Your task to perform on an android device: turn on javascript in the chrome app Image 0: 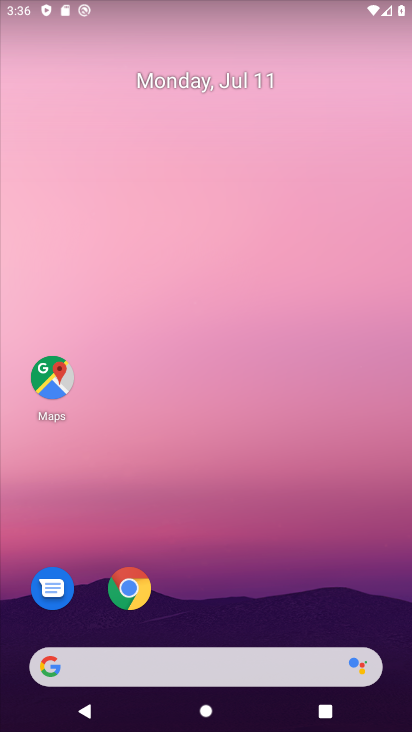
Step 0: press home button
Your task to perform on an android device: turn on javascript in the chrome app Image 1: 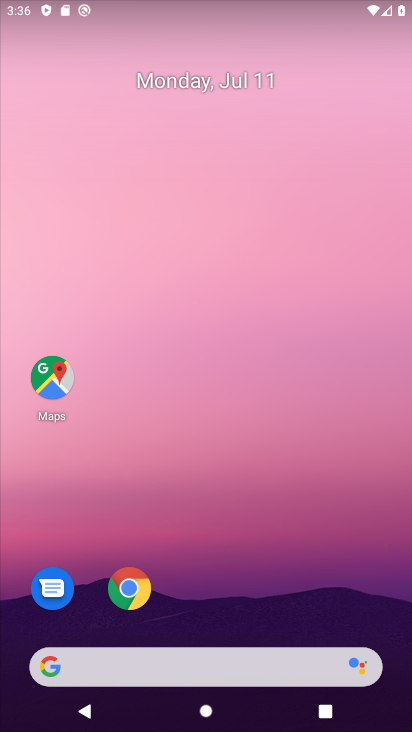
Step 1: press home button
Your task to perform on an android device: turn on javascript in the chrome app Image 2: 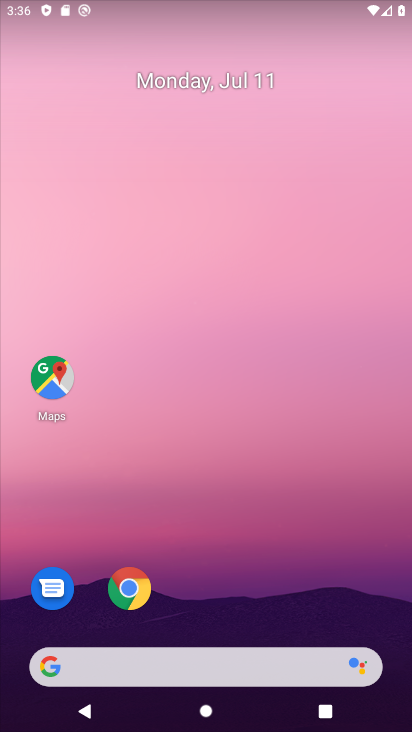
Step 2: drag from (250, 506) to (236, 34)
Your task to perform on an android device: turn on javascript in the chrome app Image 3: 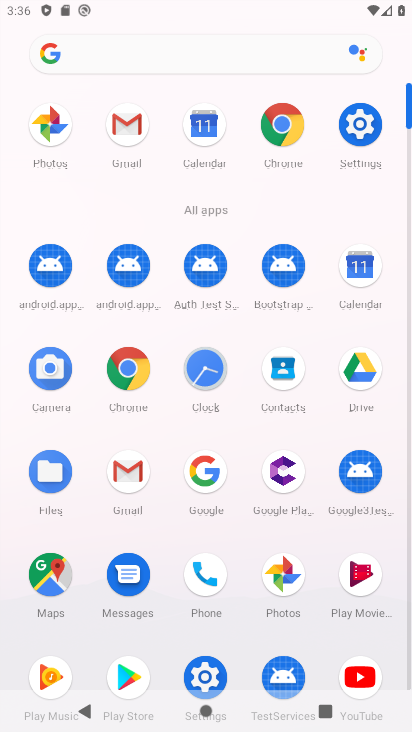
Step 3: click (287, 128)
Your task to perform on an android device: turn on javascript in the chrome app Image 4: 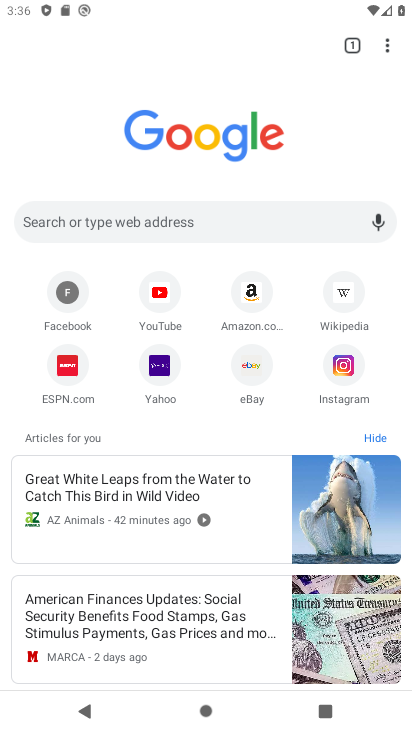
Step 4: drag from (387, 46) to (229, 383)
Your task to perform on an android device: turn on javascript in the chrome app Image 5: 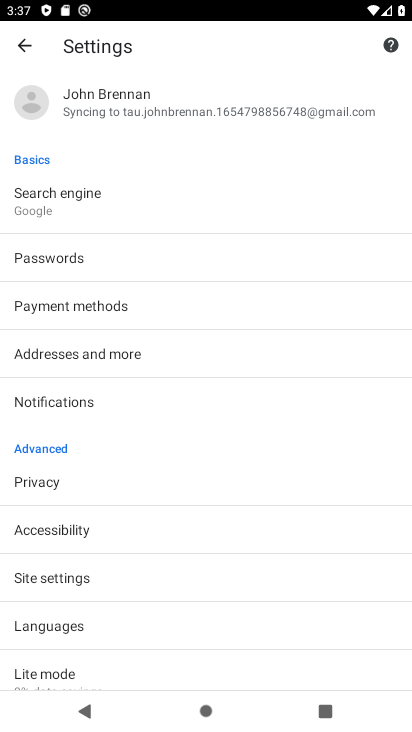
Step 5: click (39, 578)
Your task to perform on an android device: turn on javascript in the chrome app Image 6: 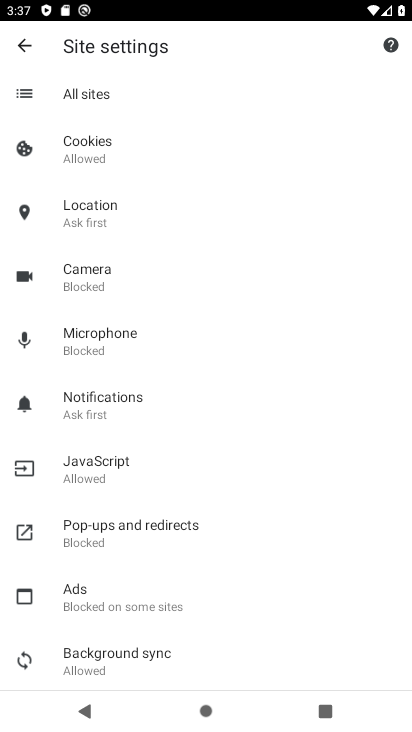
Step 6: click (82, 469)
Your task to perform on an android device: turn on javascript in the chrome app Image 7: 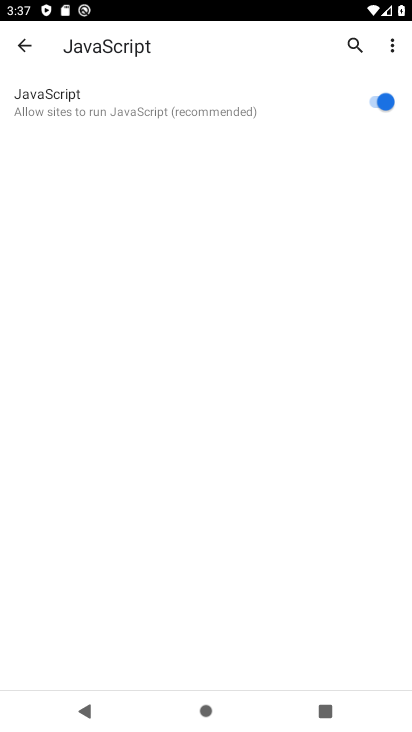
Step 7: task complete